Your task to perform on an android device: change notifications settings Image 0: 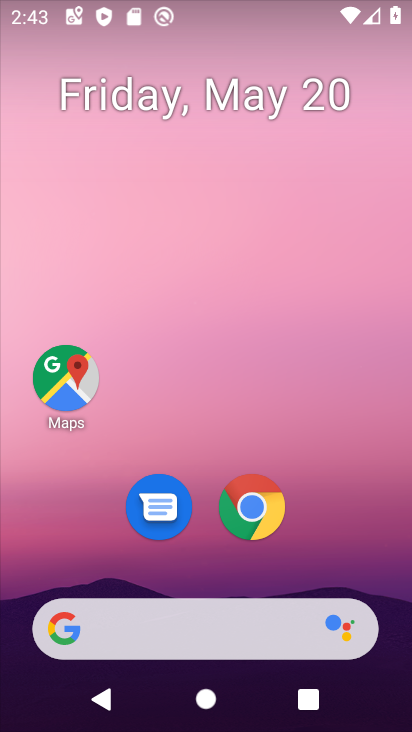
Step 0: drag from (197, 727) to (200, 103)
Your task to perform on an android device: change notifications settings Image 1: 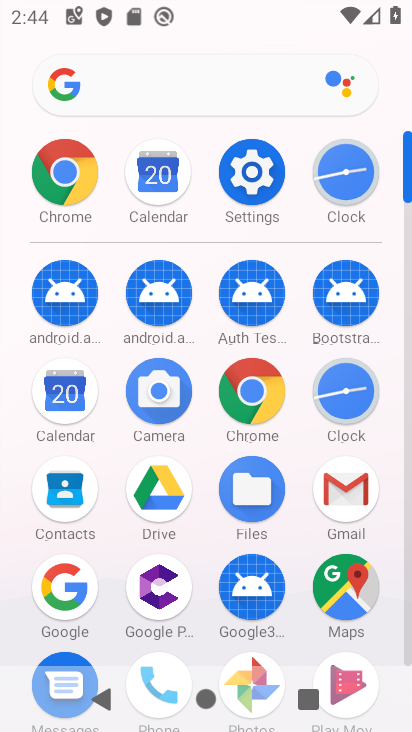
Step 1: click (250, 171)
Your task to perform on an android device: change notifications settings Image 2: 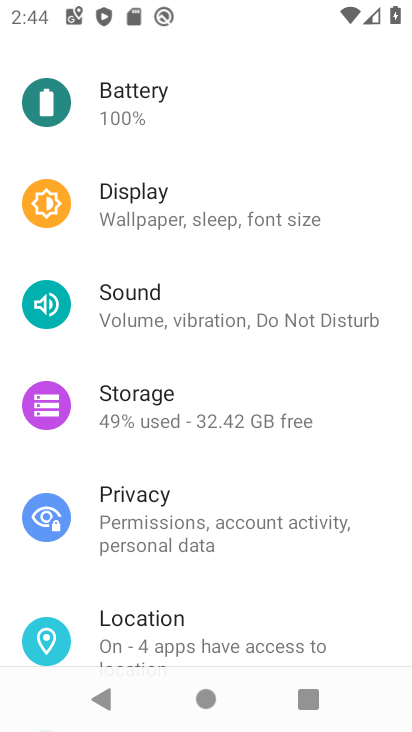
Step 2: drag from (233, 177) to (246, 510)
Your task to perform on an android device: change notifications settings Image 3: 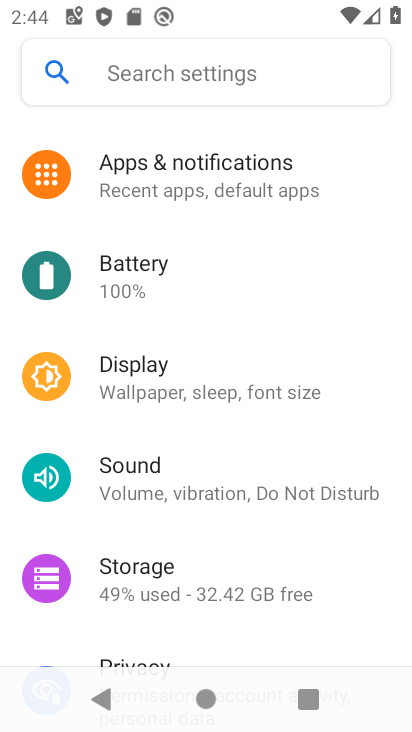
Step 3: click (190, 190)
Your task to perform on an android device: change notifications settings Image 4: 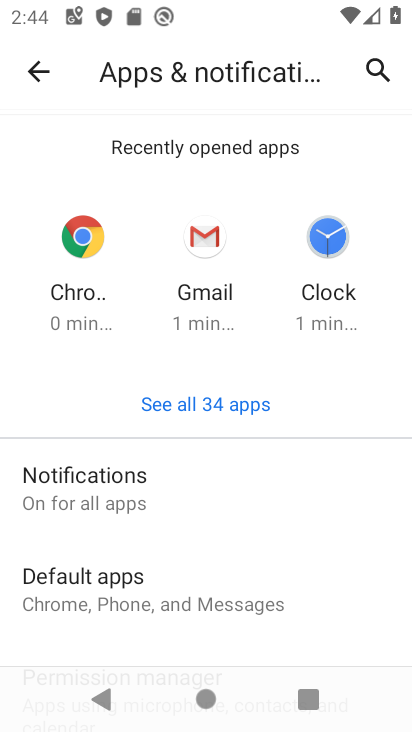
Step 4: click (86, 490)
Your task to perform on an android device: change notifications settings Image 5: 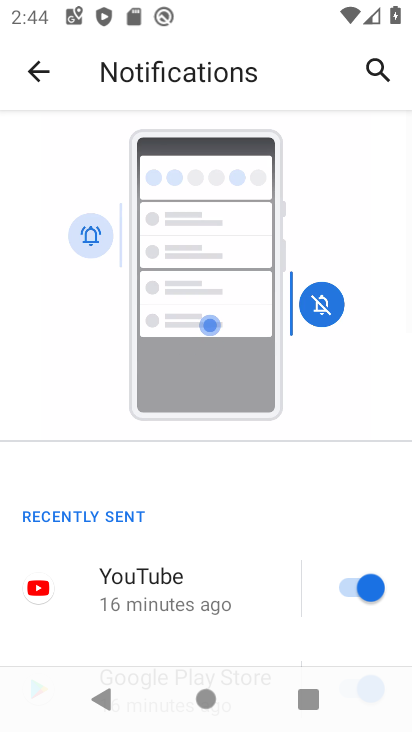
Step 5: drag from (212, 608) to (222, 222)
Your task to perform on an android device: change notifications settings Image 6: 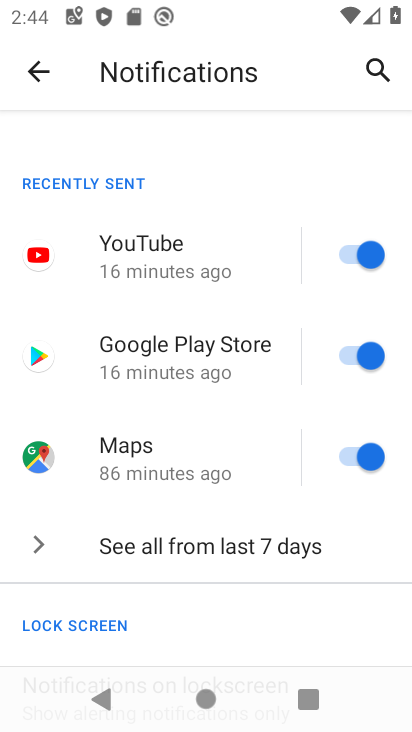
Step 6: drag from (233, 607) to (226, 163)
Your task to perform on an android device: change notifications settings Image 7: 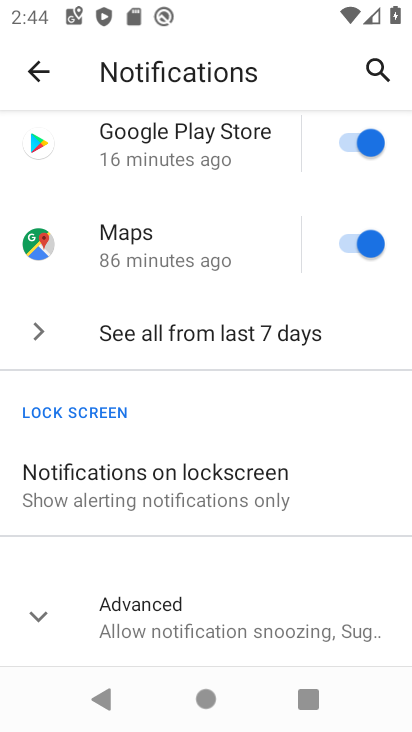
Step 7: click (175, 613)
Your task to perform on an android device: change notifications settings Image 8: 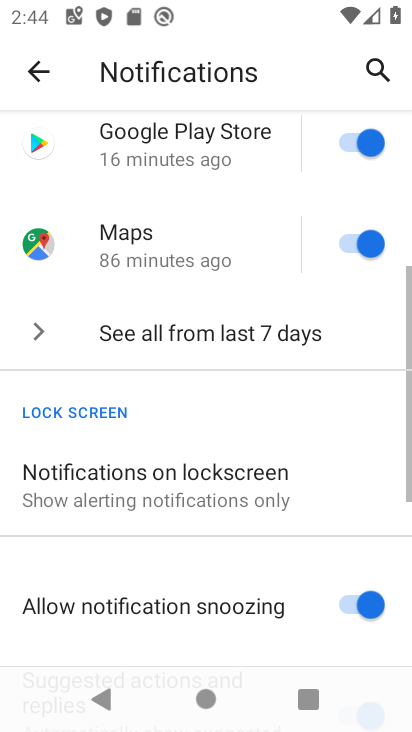
Step 8: drag from (221, 634) to (255, 282)
Your task to perform on an android device: change notifications settings Image 9: 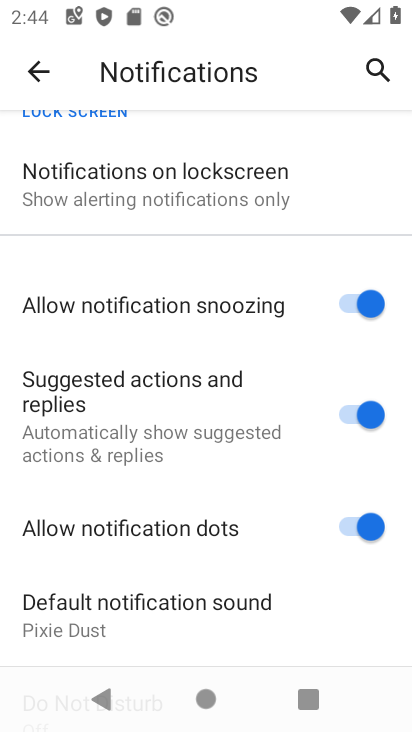
Step 9: click (350, 307)
Your task to perform on an android device: change notifications settings Image 10: 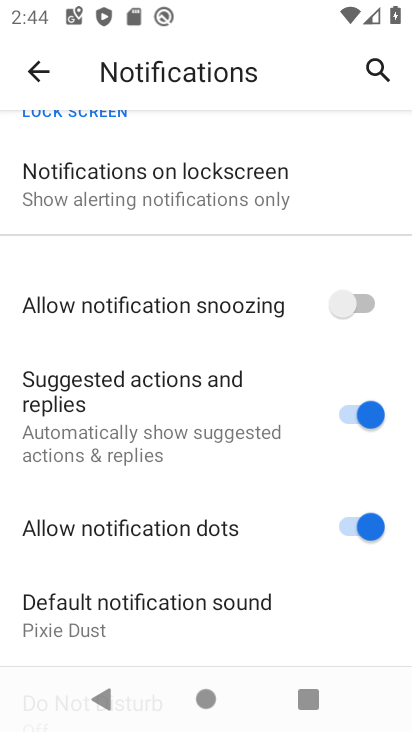
Step 10: task complete